Your task to perform on an android device: Go to privacy settings Image 0: 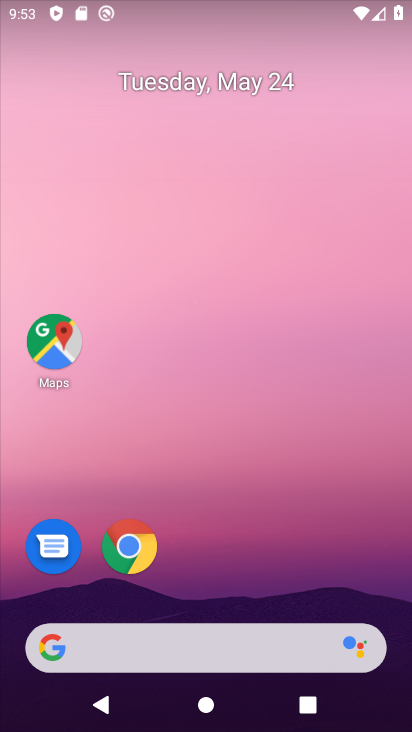
Step 0: drag from (237, 538) to (301, 135)
Your task to perform on an android device: Go to privacy settings Image 1: 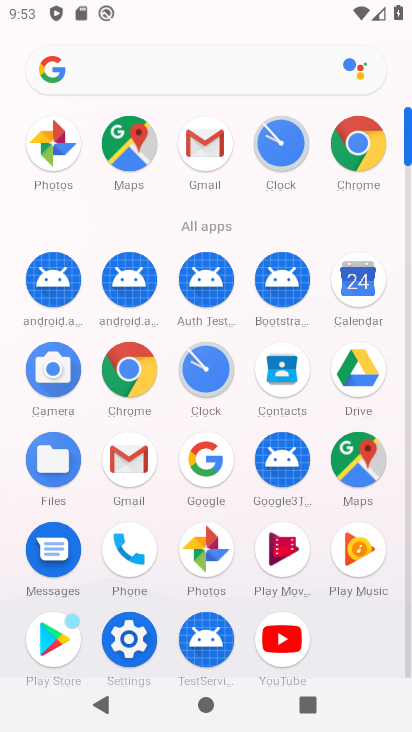
Step 1: click (135, 636)
Your task to perform on an android device: Go to privacy settings Image 2: 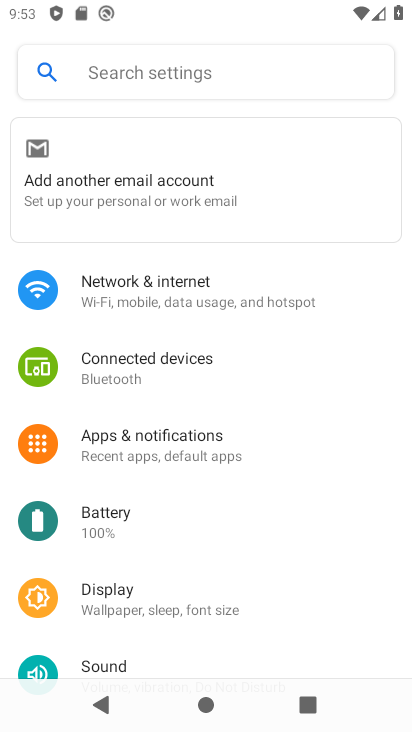
Step 2: drag from (215, 580) to (347, 205)
Your task to perform on an android device: Go to privacy settings Image 3: 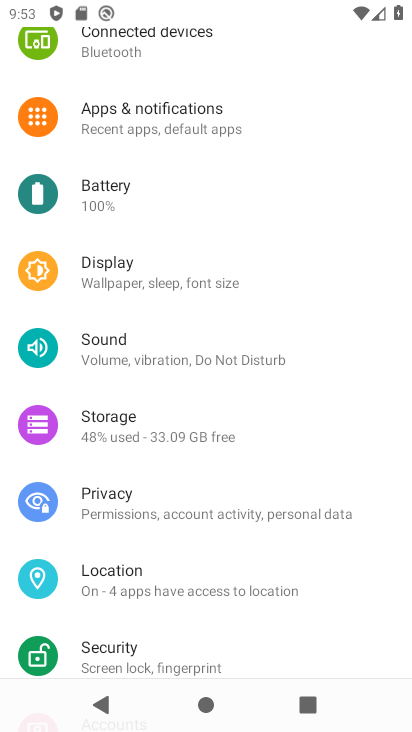
Step 3: drag from (212, 605) to (333, 223)
Your task to perform on an android device: Go to privacy settings Image 4: 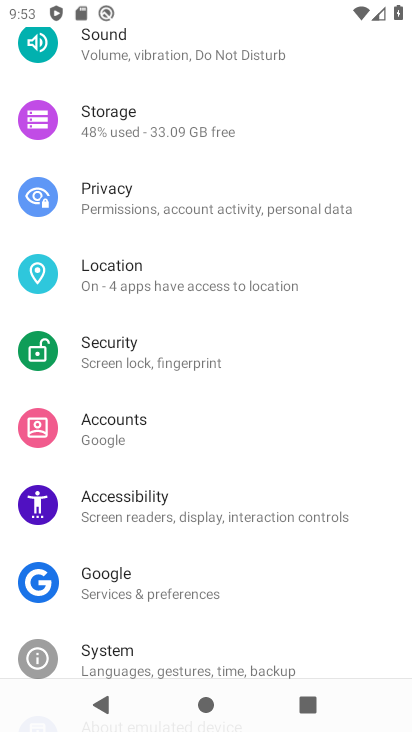
Step 4: drag from (202, 619) to (309, 258)
Your task to perform on an android device: Go to privacy settings Image 5: 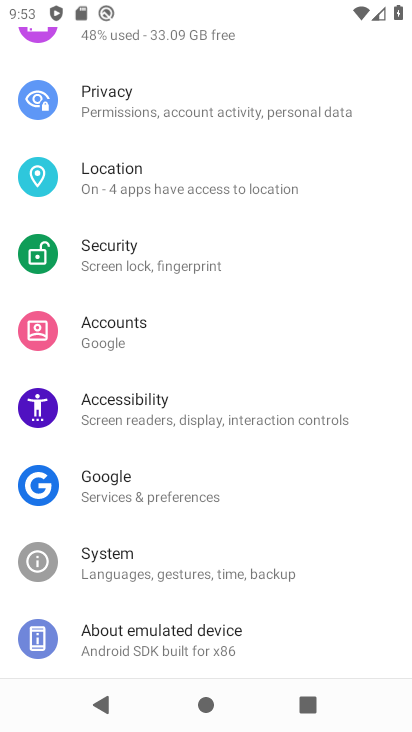
Step 5: drag from (277, 275) to (263, 490)
Your task to perform on an android device: Go to privacy settings Image 6: 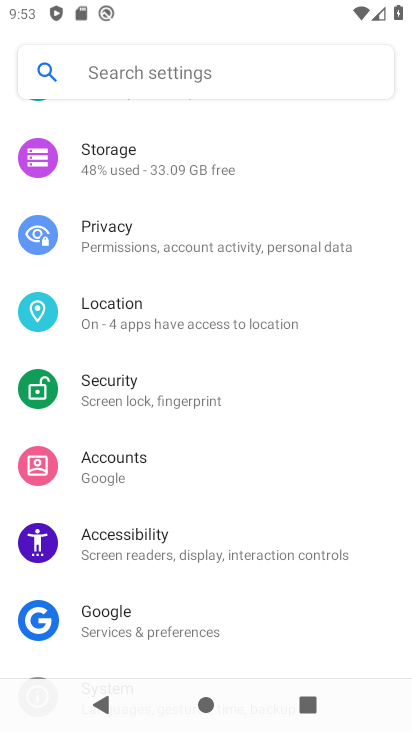
Step 6: click (189, 244)
Your task to perform on an android device: Go to privacy settings Image 7: 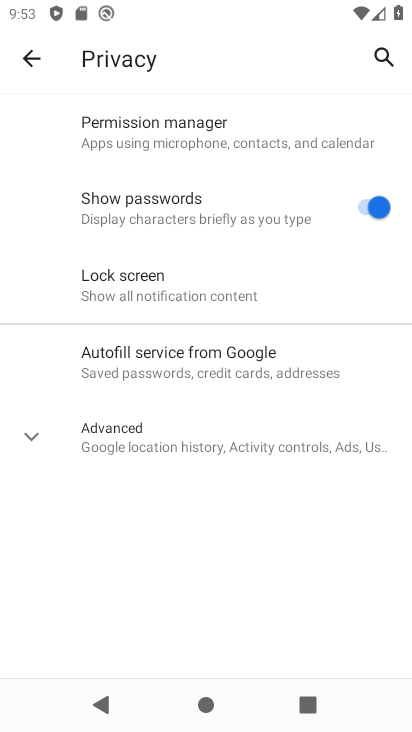
Step 7: task complete